Your task to perform on an android device: Open the Google play store app Image 0: 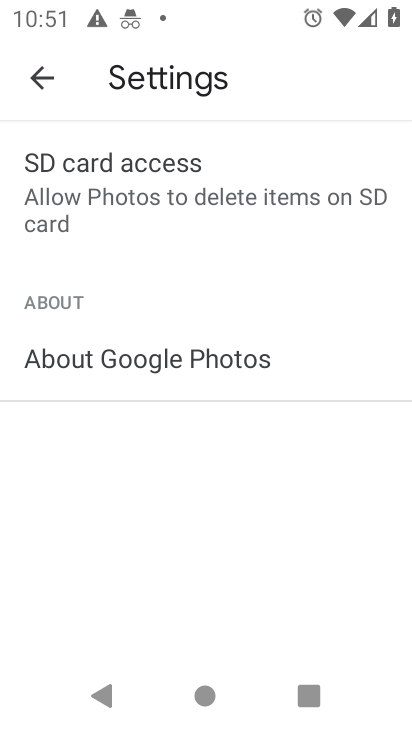
Step 0: press home button
Your task to perform on an android device: Open the Google play store app Image 1: 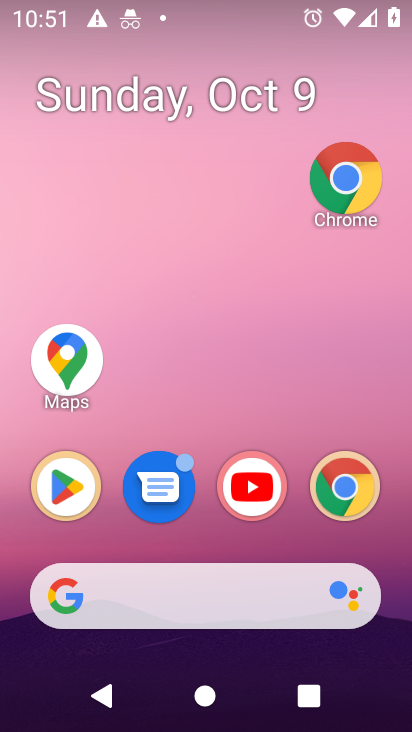
Step 1: drag from (240, 555) to (382, 328)
Your task to perform on an android device: Open the Google play store app Image 2: 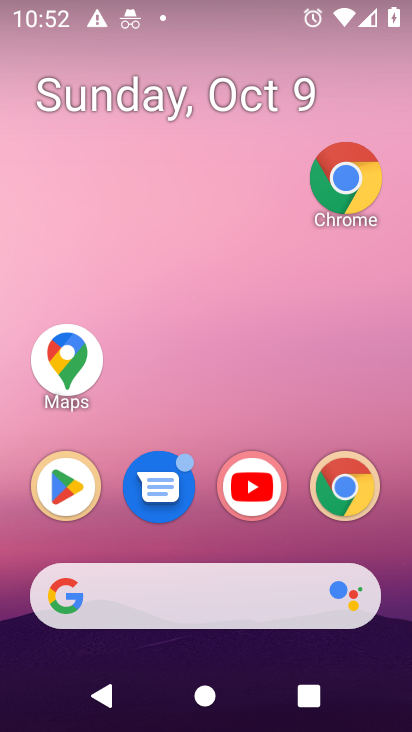
Step 2: drag from (287, 598) to (280, 59)
Your task to perform on an android device: Open the Google play store app Image 3: 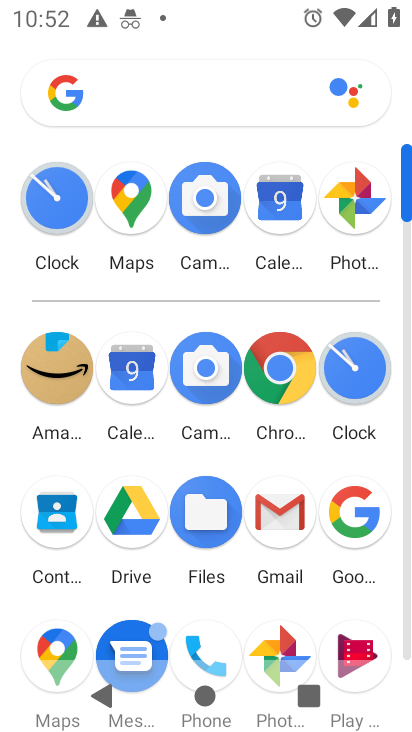
Step 3: drag from (286, 542) to (269, 207)
Your task to perform on an android device: Open the Google play store app Image 4: 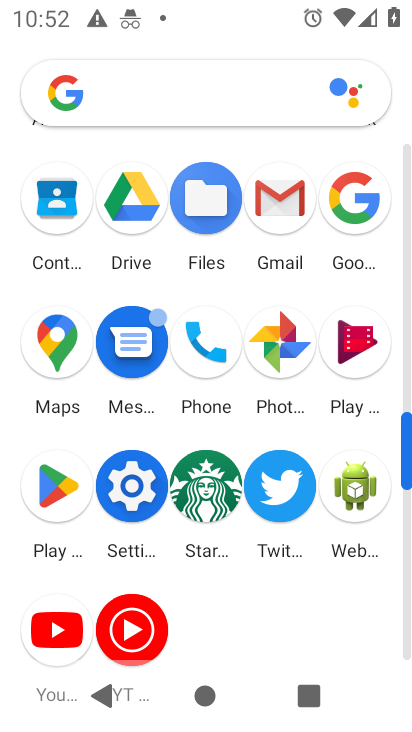
Step 4: click (69, 502)
Your task to perform on an android device: Open the Google play store app Image 5: 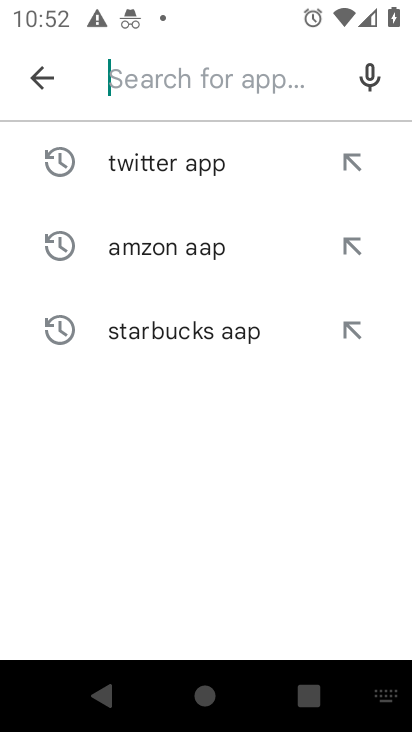
Step 5: click (56, 83)
Your task to perform on an android device: Open the Google play store app Image 6: 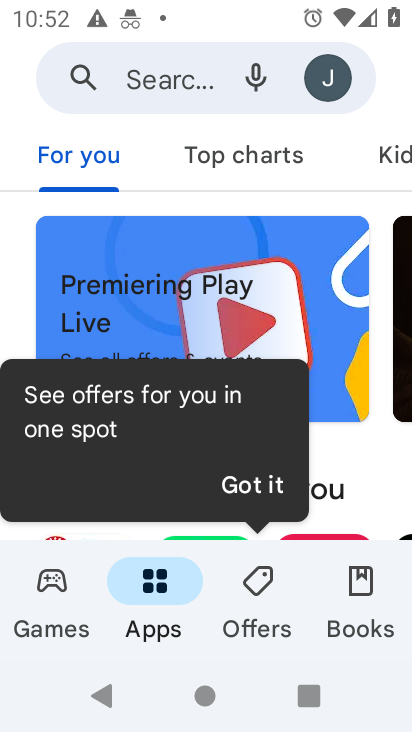
Step 6: click (252, 479)
Your task to perform on an android device: Open the Google play store app Image 7: 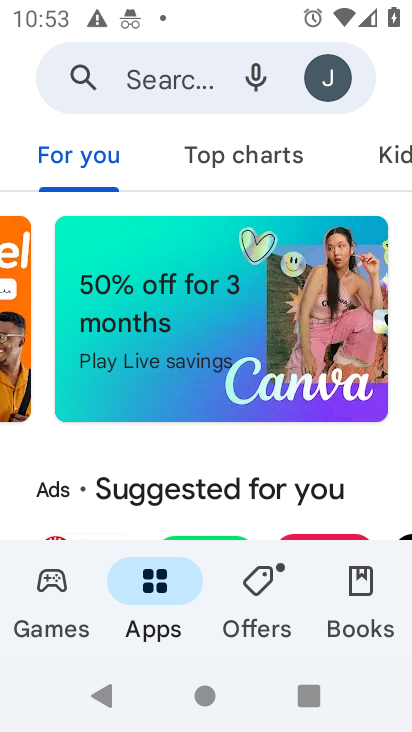
Step 7: task complete